Your task to perform on an android device: move a message to another label in the gmail app Image 0: 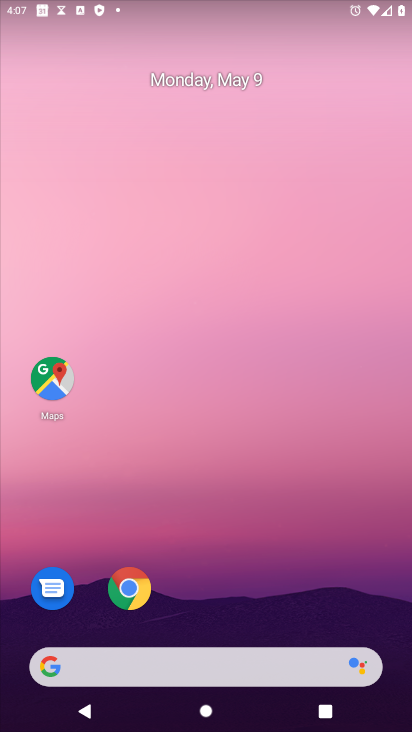
Step 0: drag from (264, 598) to (195, 185)
Your task to perform on an android device: move a message to another label in the gmail app Image 1: 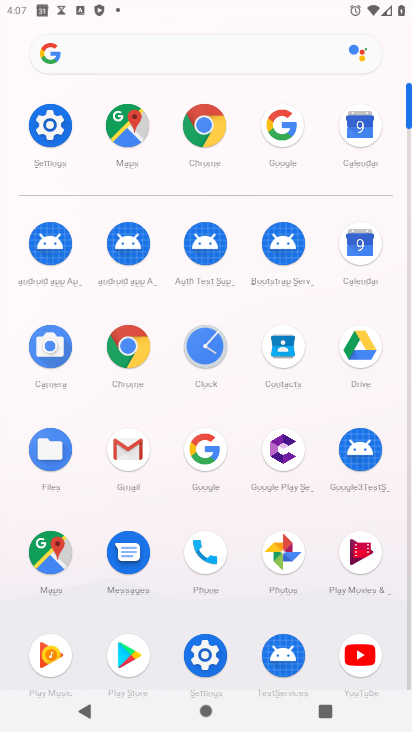
Step 1: click (130, 446)
Your task to perform on an android device: move a message to another label in the gmail app Image 2: 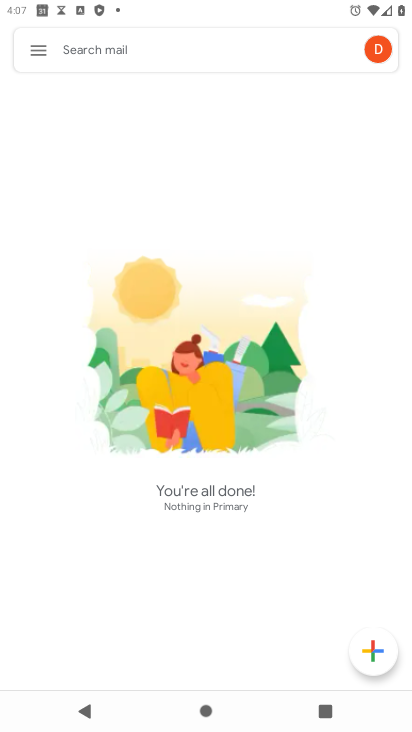
Step 2: click (25, 45)
Your task to perform on an android device: move a message to another label in the gmail app Image 3: 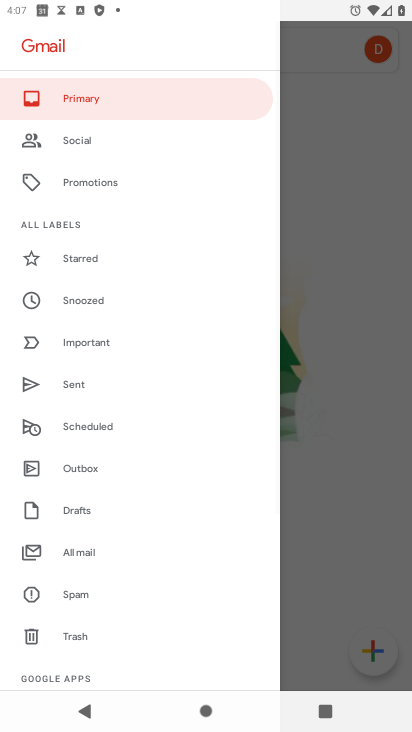
Step 3: click (139, 544)
Your task to perform on an android device: move a message to another label in the gmail app Image 4: 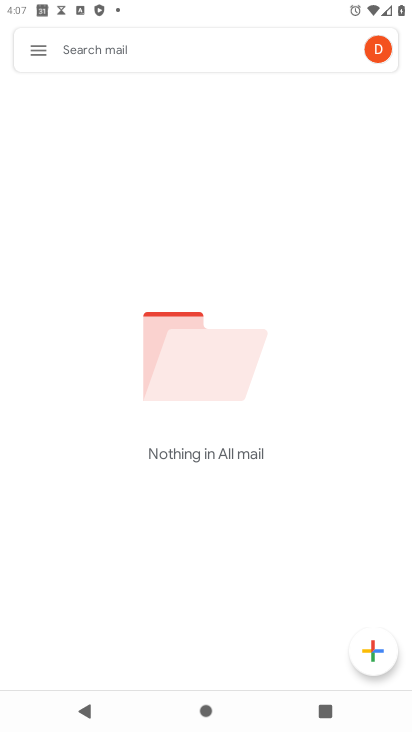
Step 4: task complete